Your task to perform on an android device: change notifications settings Image 0: 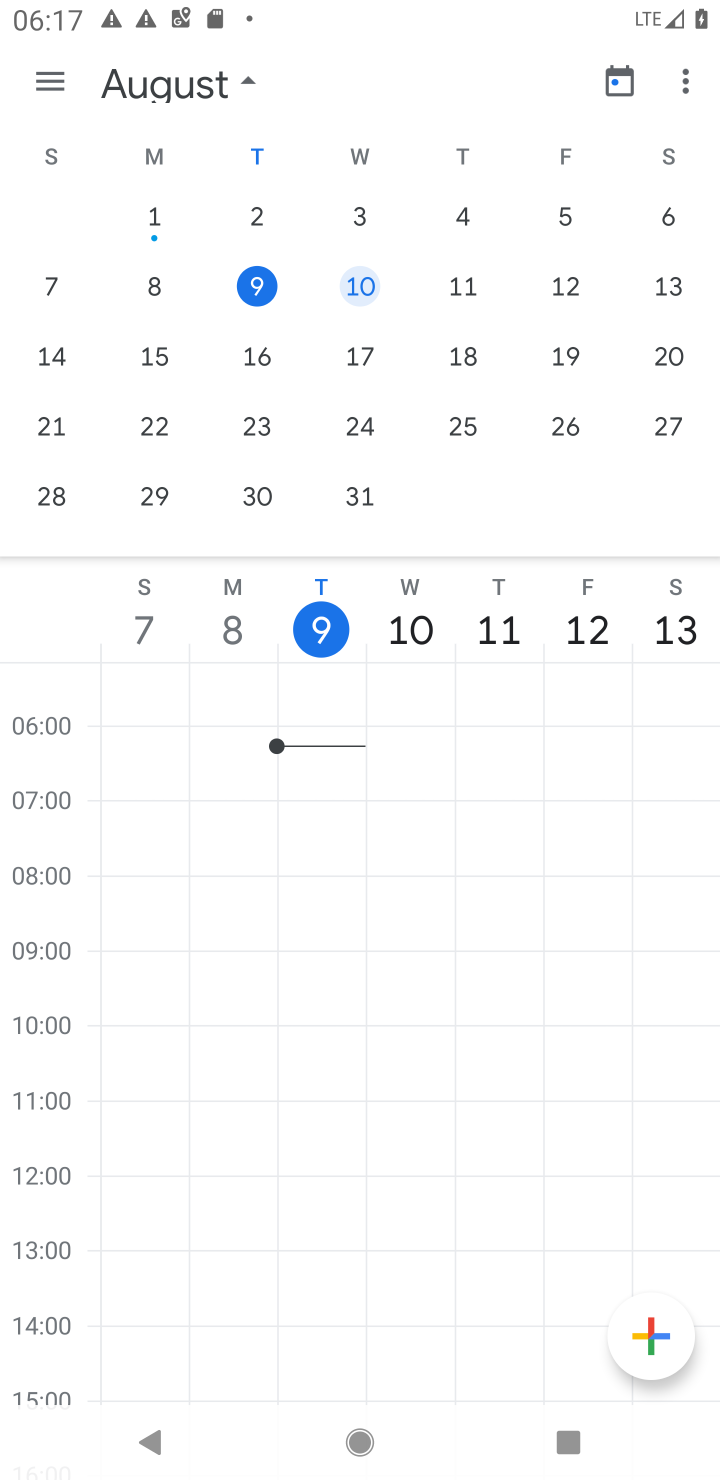
Step 0: press home button
Your task to perform on an android device: change notifications settings Image 1: 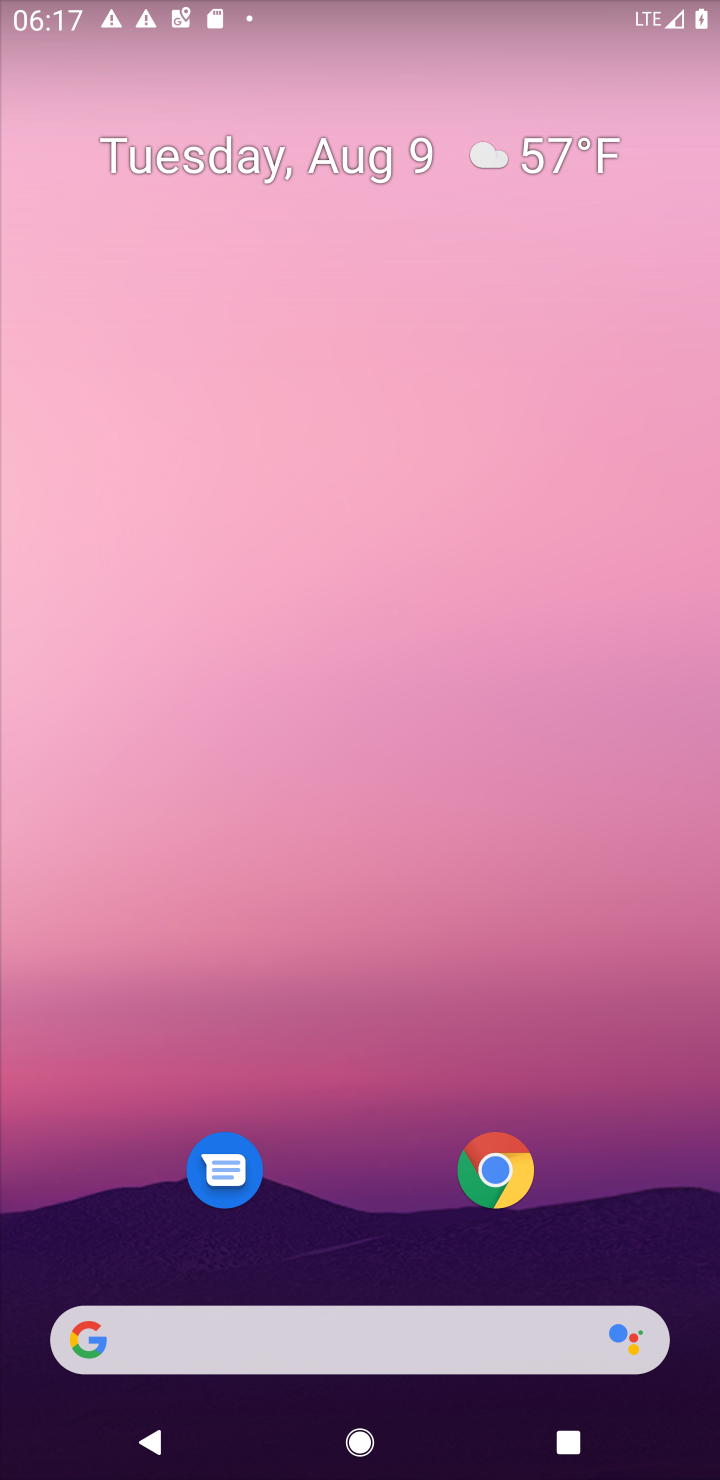
Step 1: drag from (347, 801) to (348, 298)
Your task to perform on an android device: change notifications settings Image 2: 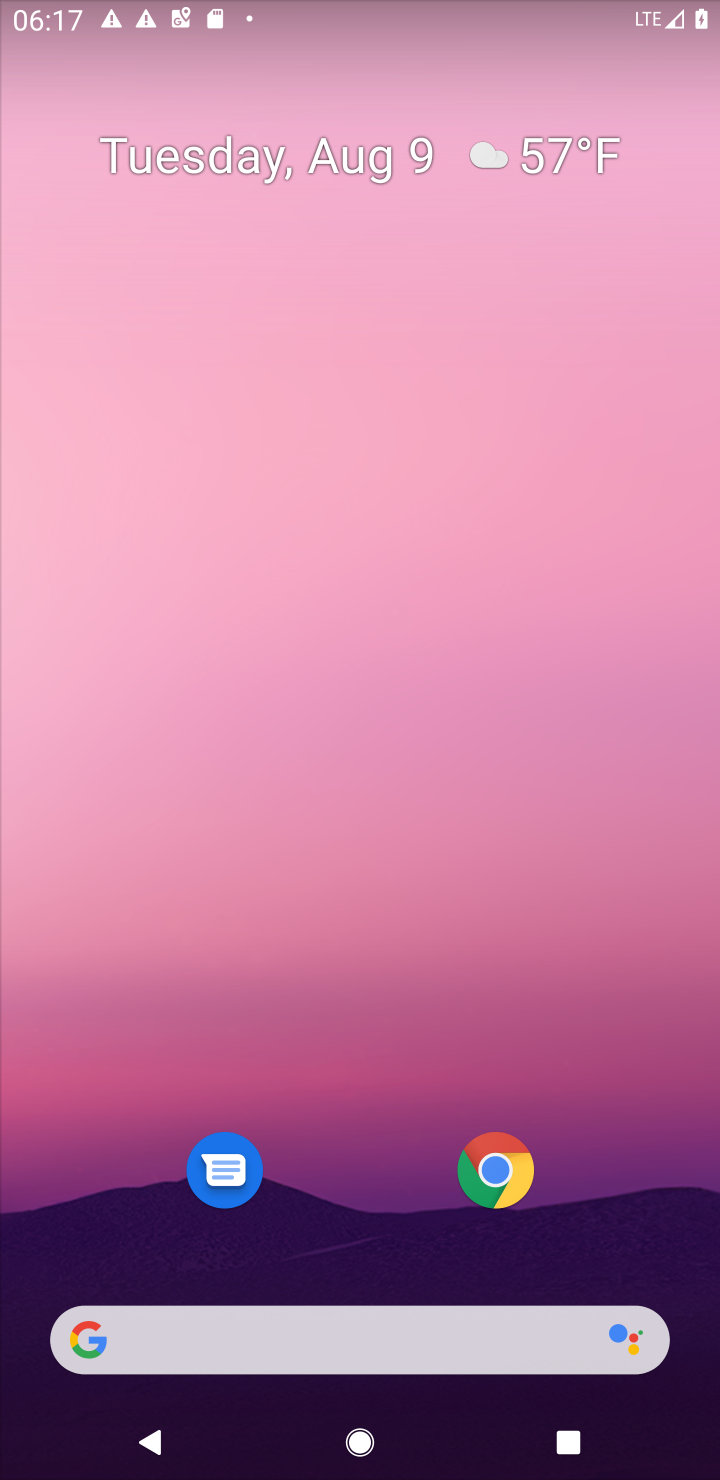
Step 2: drag from (376, 1184) to (396, 227)
Your task to perform on an android device: change notifications settings Image 3: 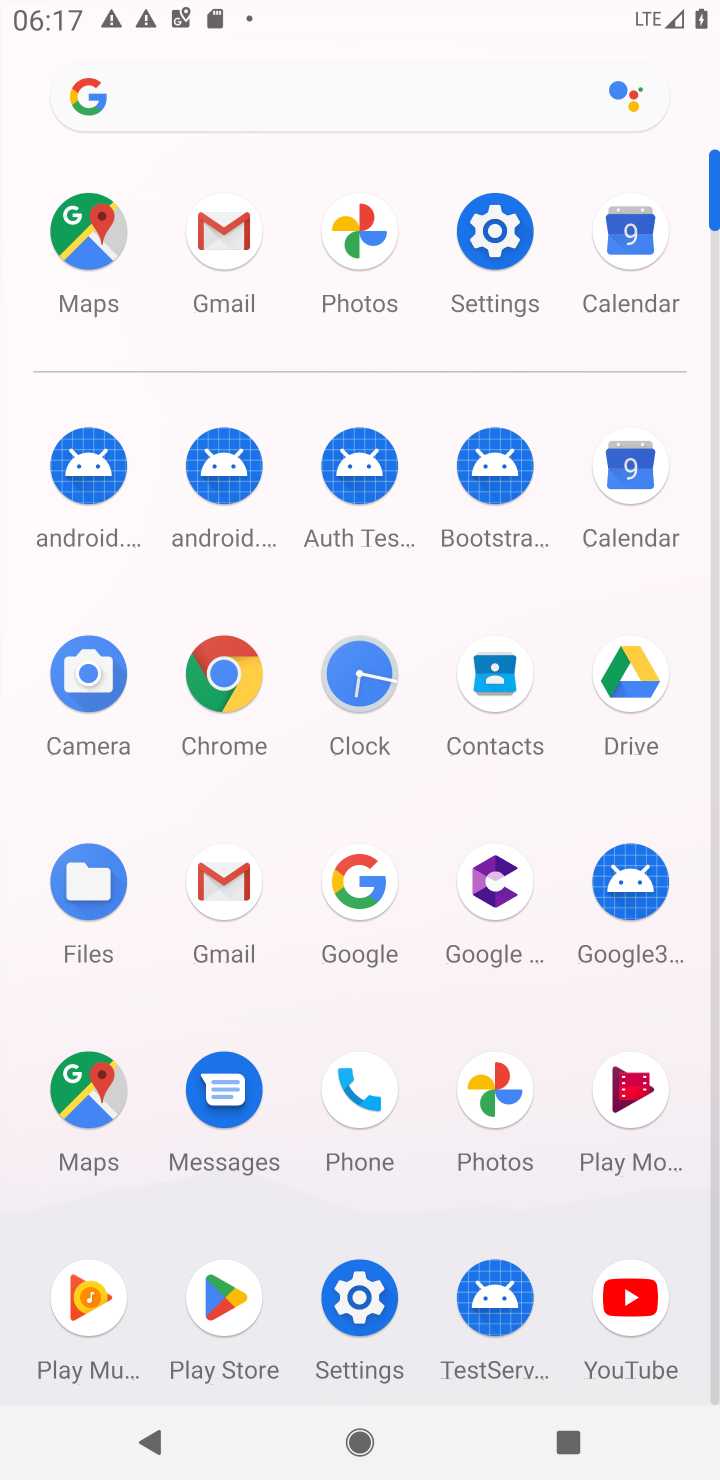
Step 3: click (493, 247)
Your task to perform on an android device: change notifications settings Image 4: 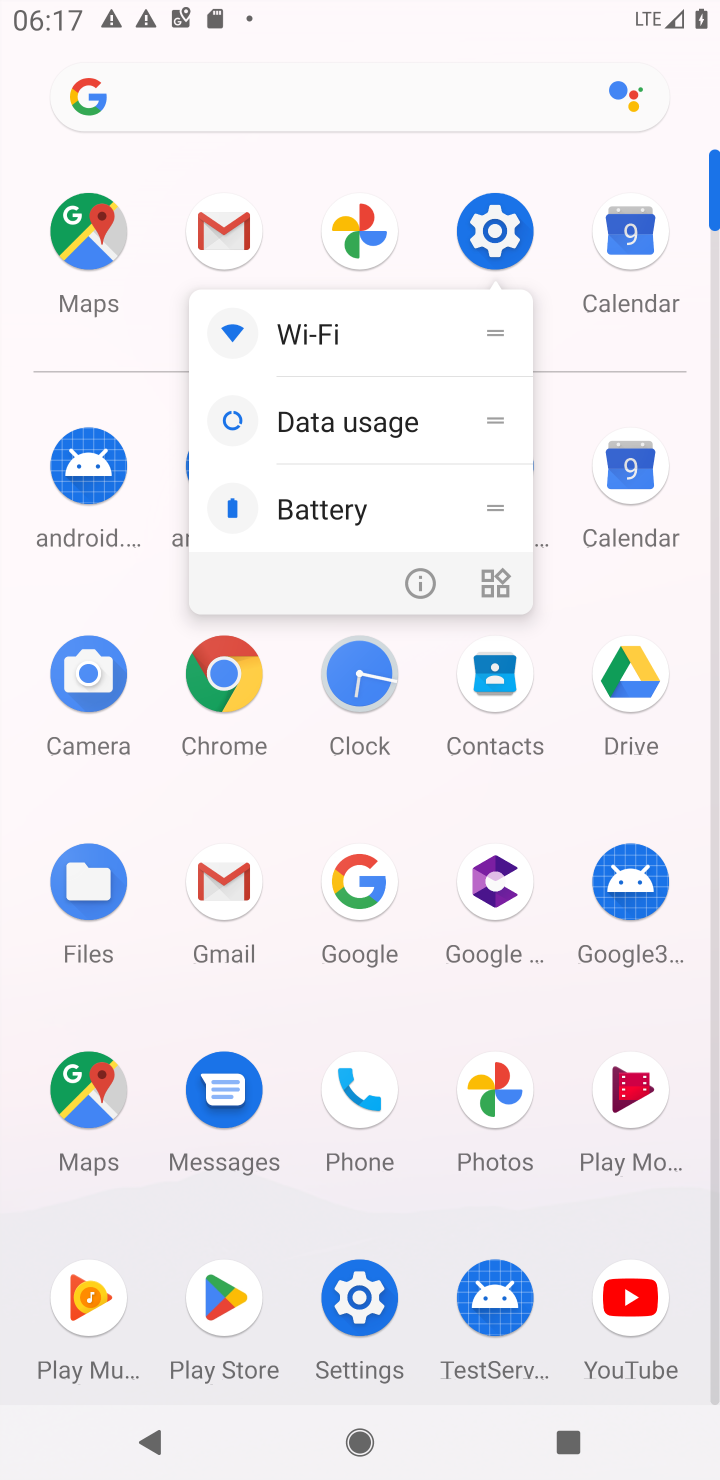
Step 4: click (502, 248)
Your task to perform on an android device: change notifications settings Image 5: 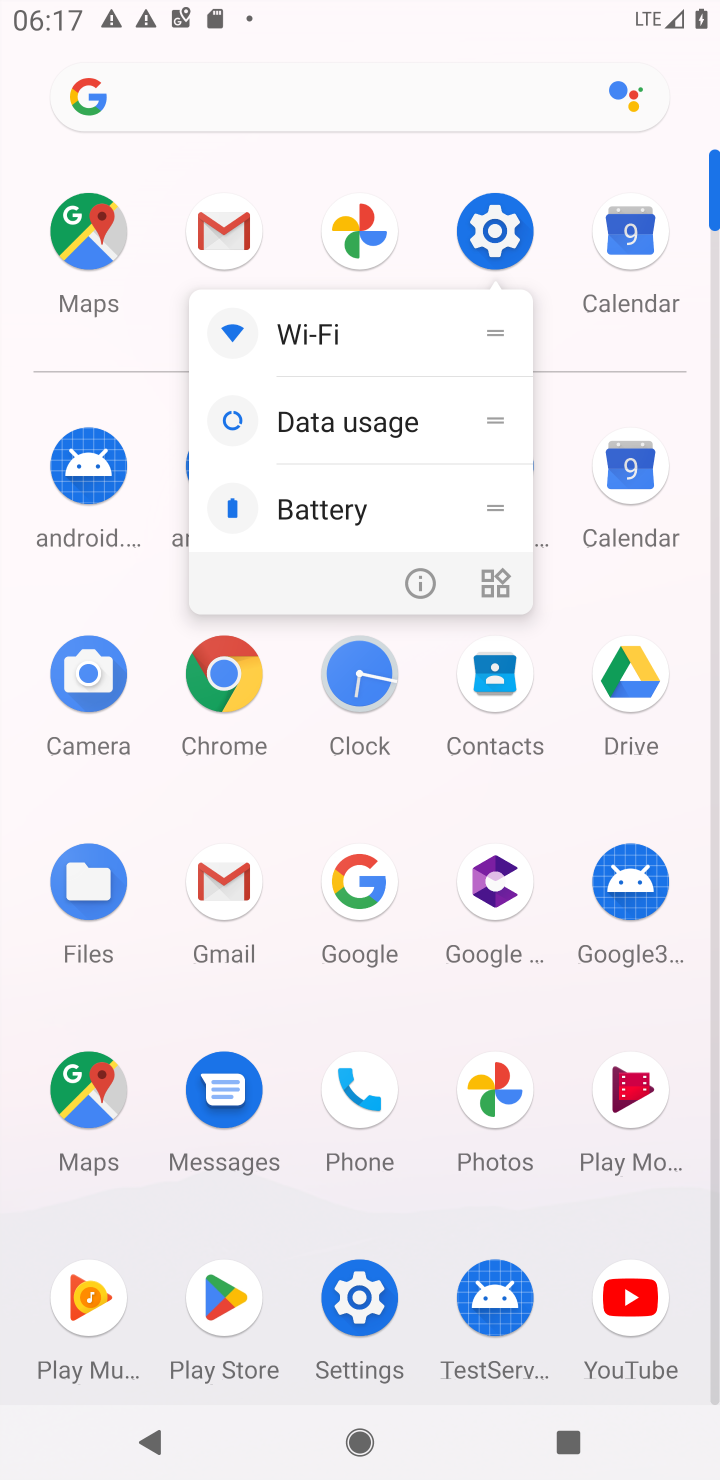
Step 5: click (502, 248)
Your task to perform on an android device: change notifications settings Image 6: 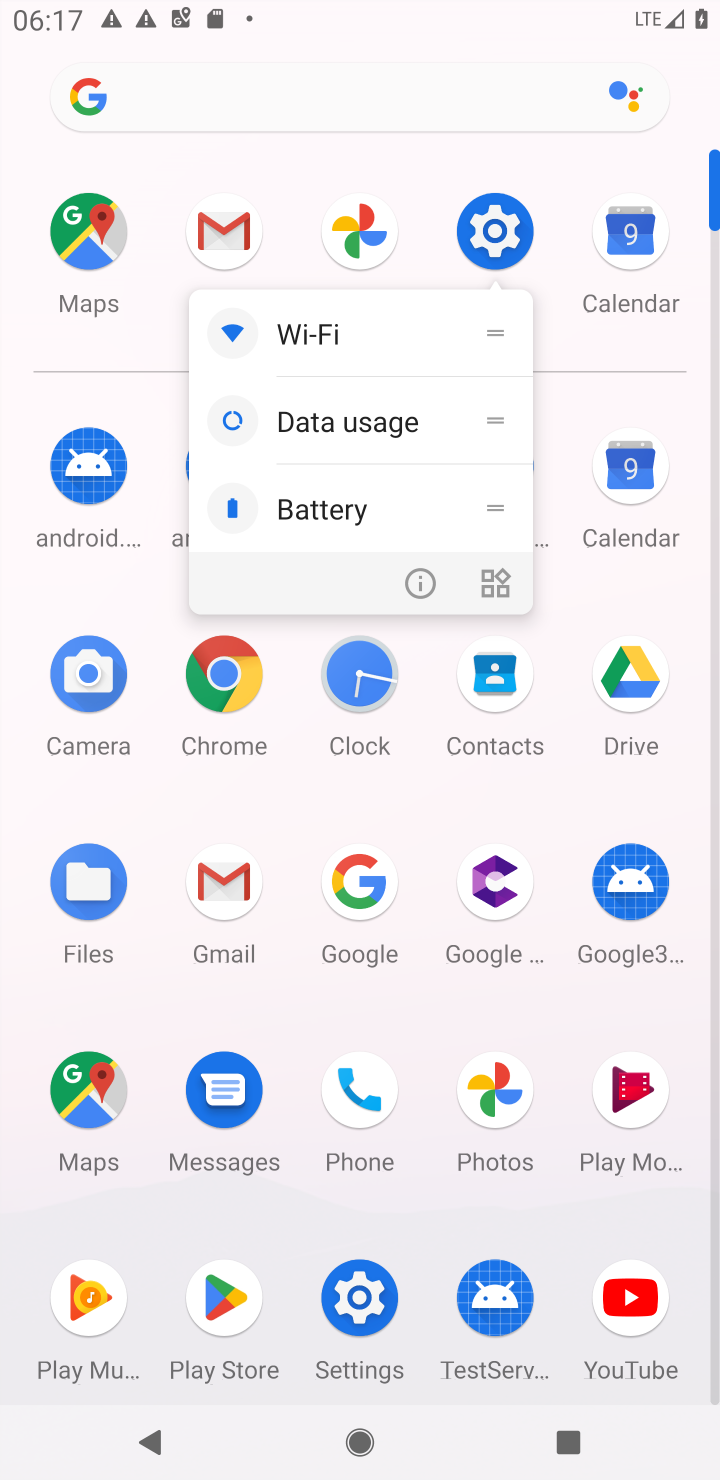
Step 6: click (502, 248)
Your task to perform on an android device: change notifications settings Image 7: 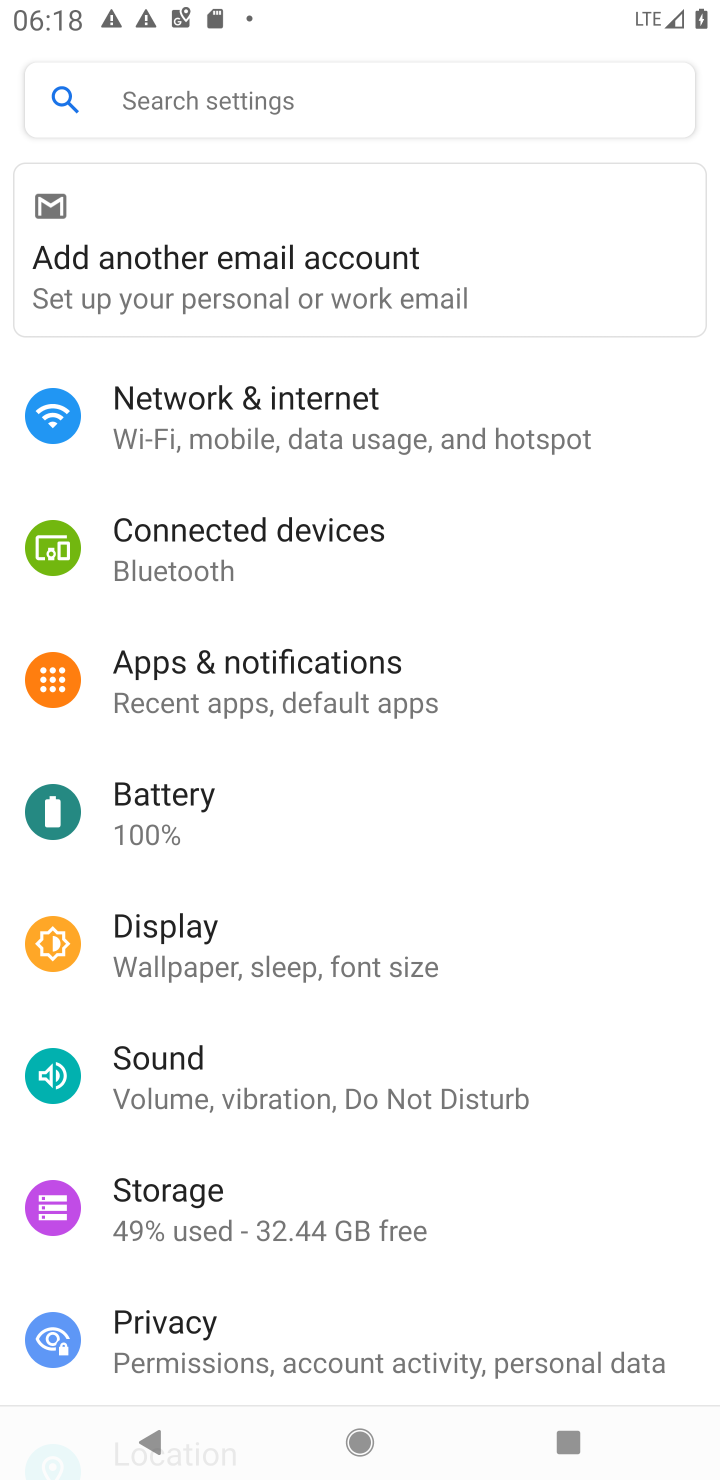
Step 7: click (215, 692)
Your task to perform on an android device: change notifications settings Image 8: 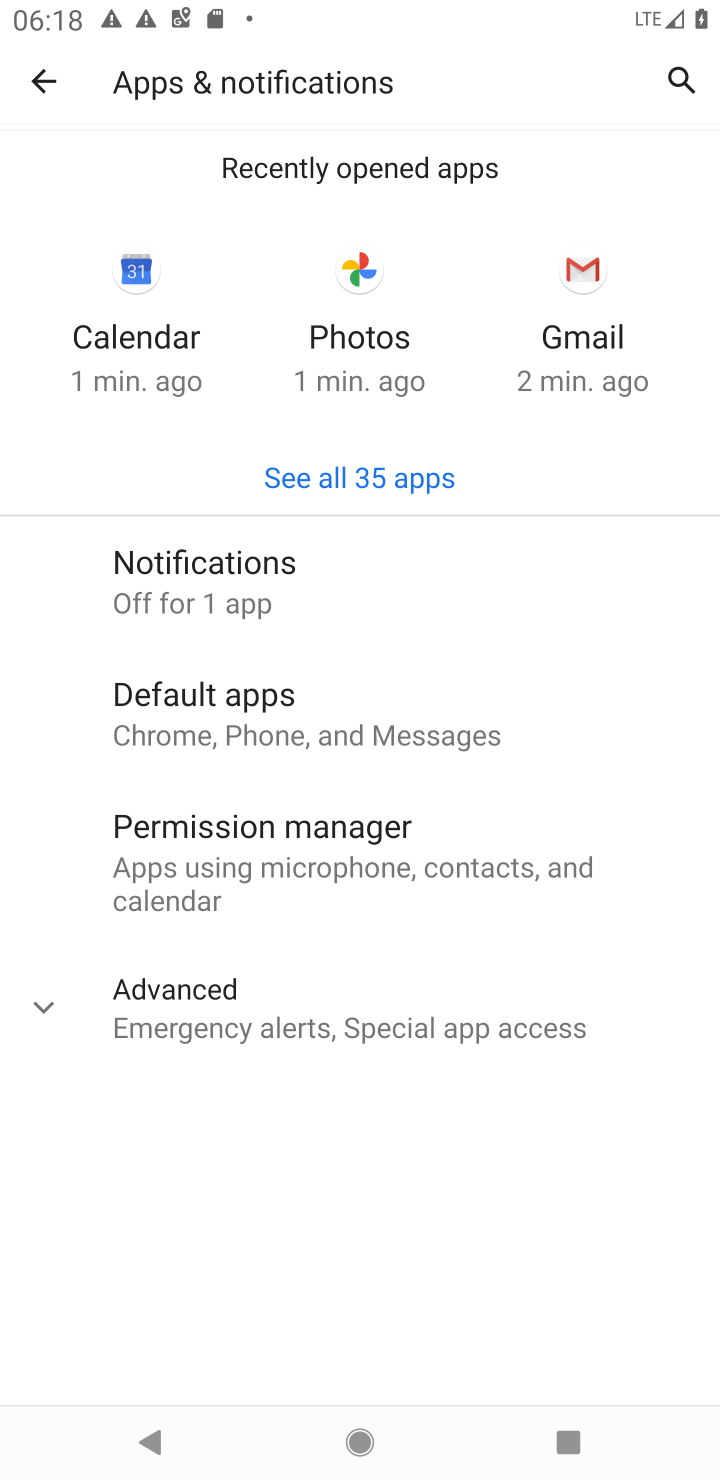
Step 8: click (208, 583)
Your task to perform on an android device: change notifications settings Image 9: 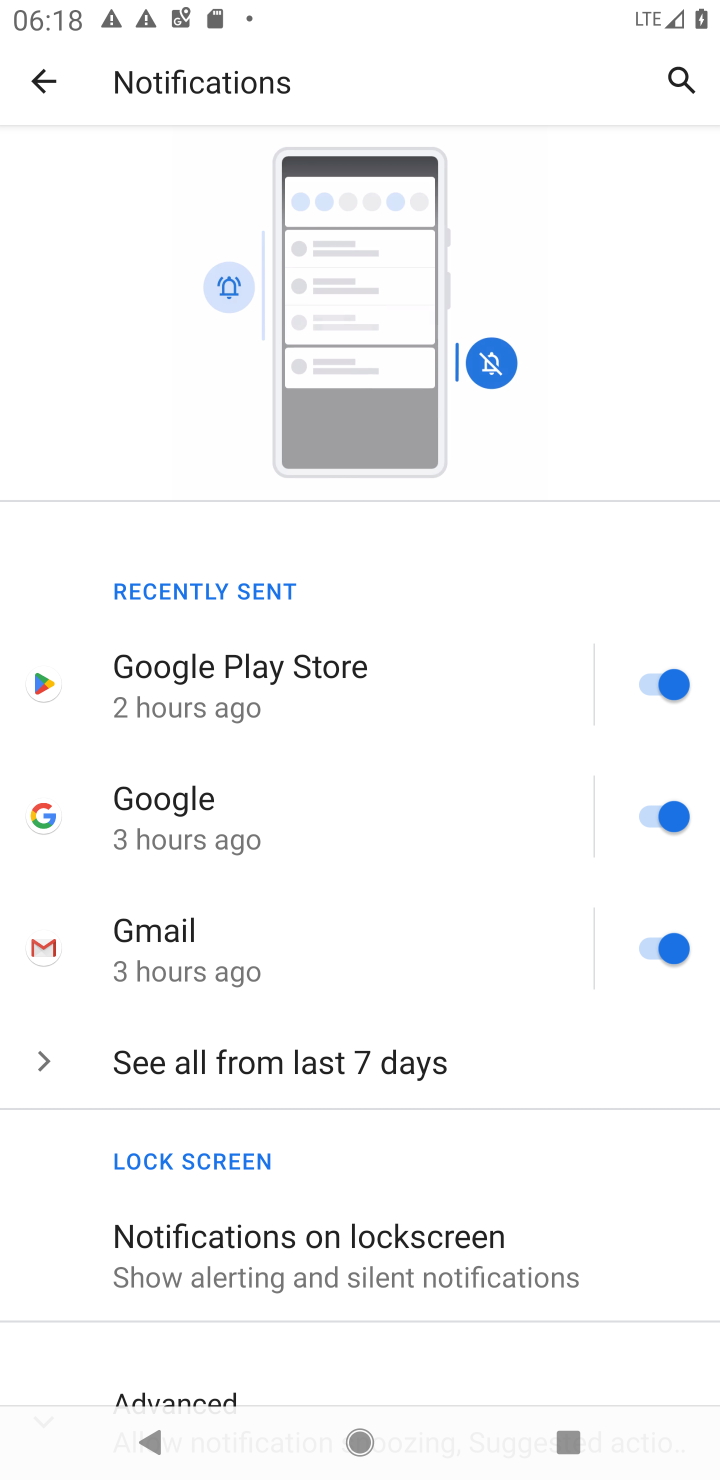
Step 9: click (326, 1271)
Your task to perform on an android device: change notifications settings Image 10: 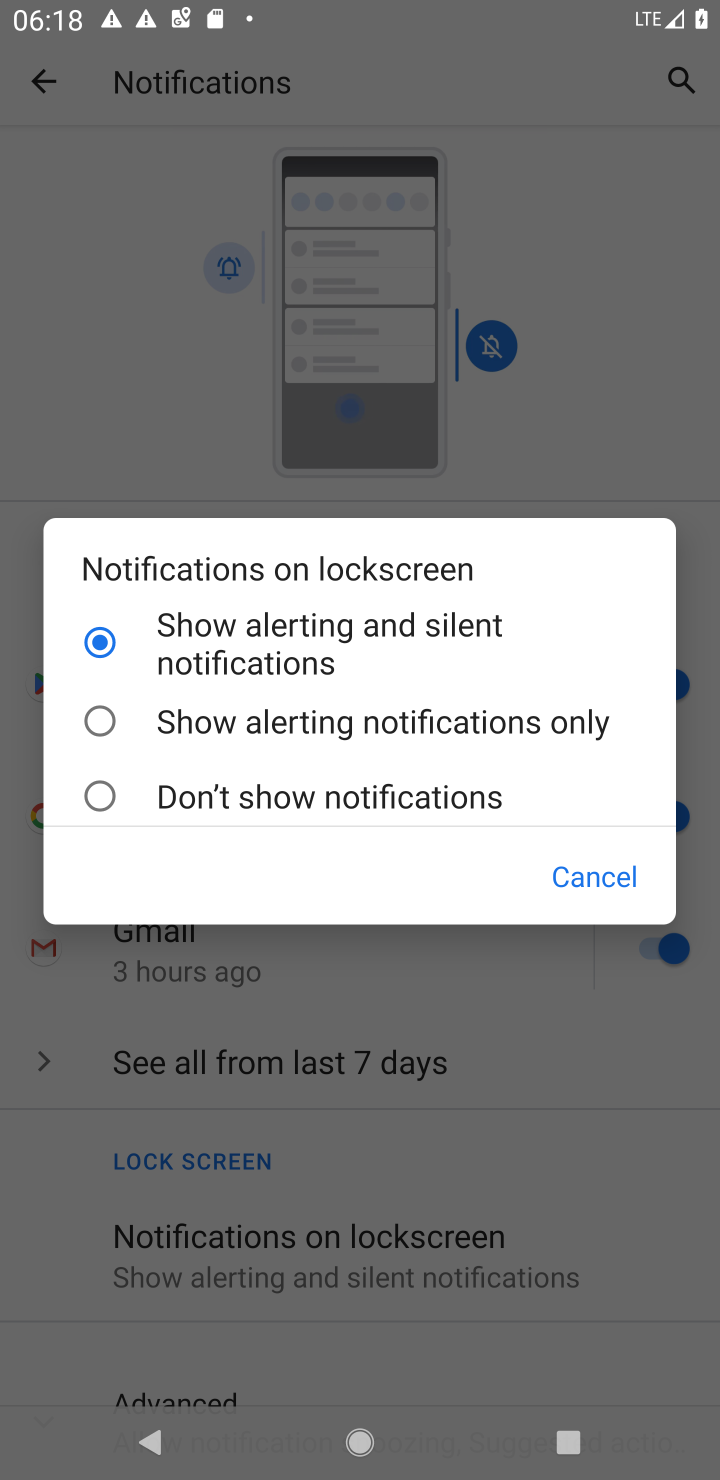
Step 10: click (92, 800)
Your task to perform on an android device: change notifications settings Image 11: 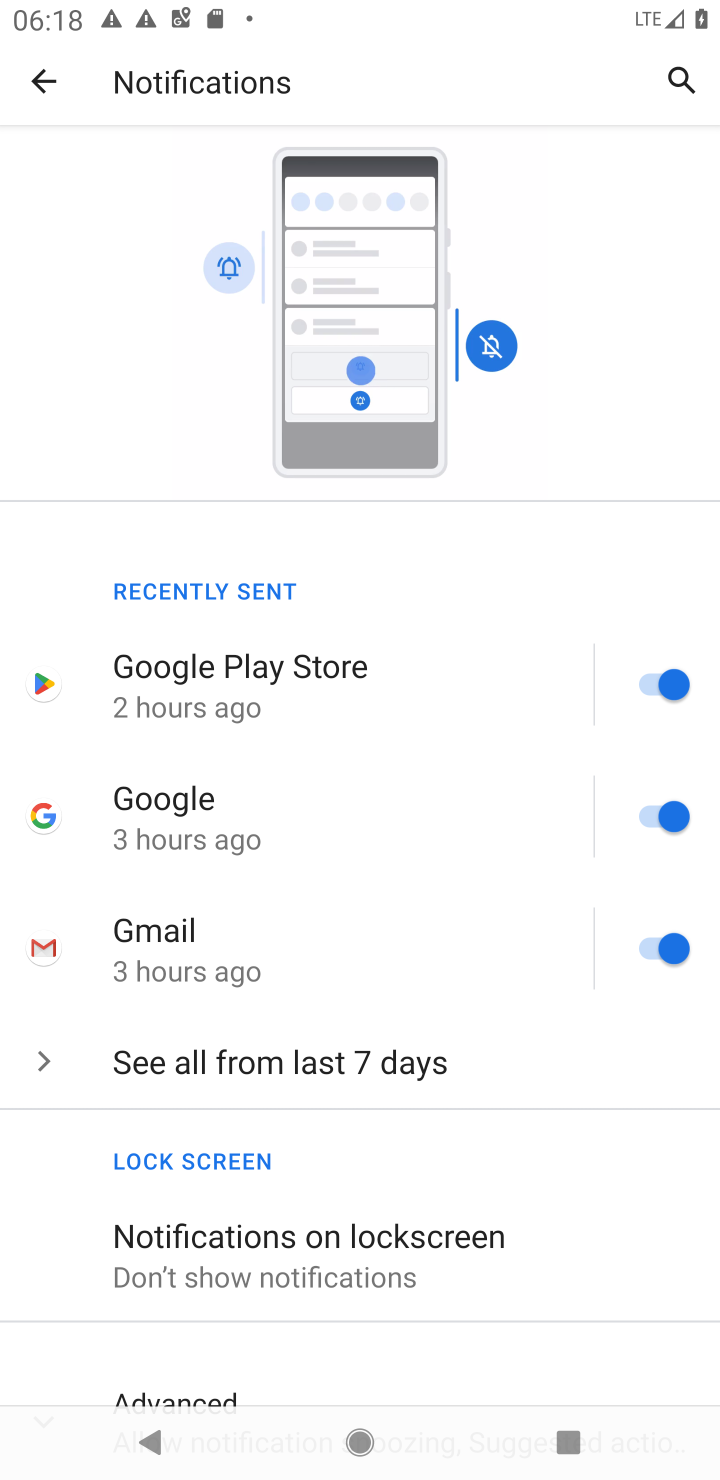
Step 11: task complete